Your task to perform on an android device: Search for pizza restaurants on Maps Image 0: 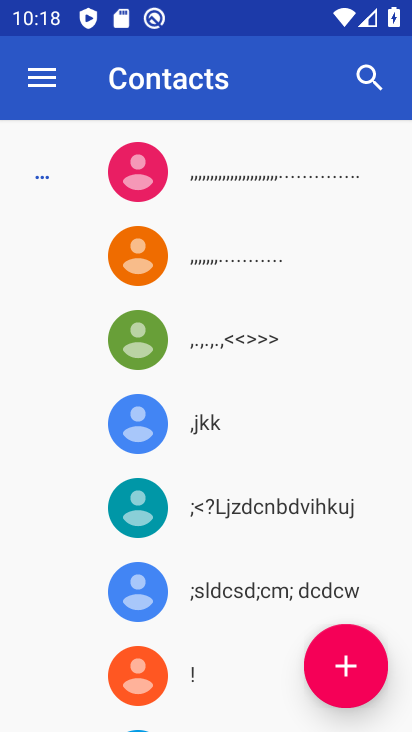
Step 0: press home button
Your task to perform on an android device: Search for pizza restaurants on Maps Image 1: 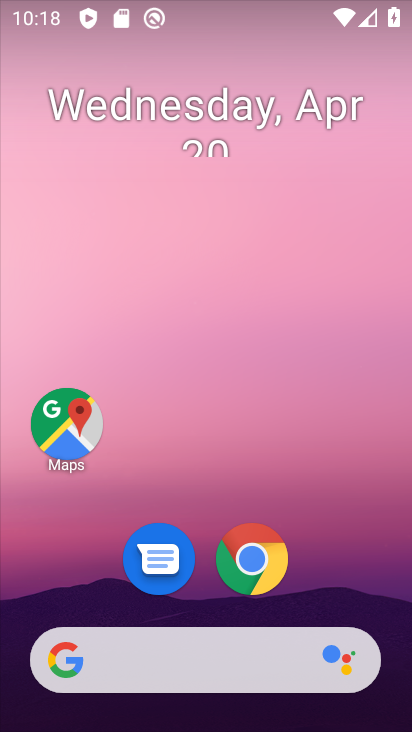
Step 1: drag from (206, 673) to (208, 69)
Your task to perform on an android device: Search for pizza restaurants on Maps Image 2: 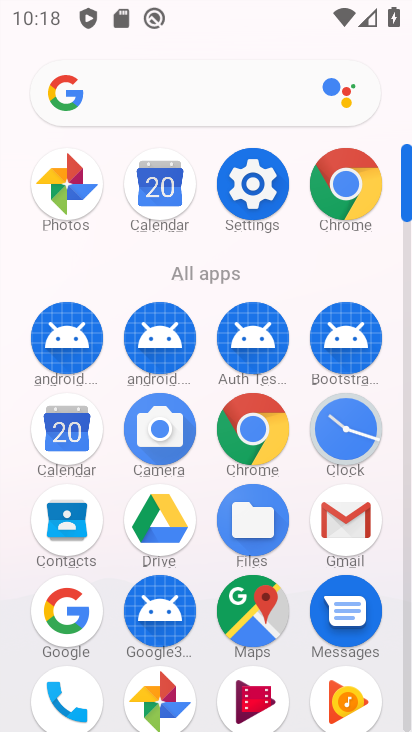
Step 2: click (252, 610)
Your task to perform on an android device: Search for pizza restaurants on Maps Image 3: 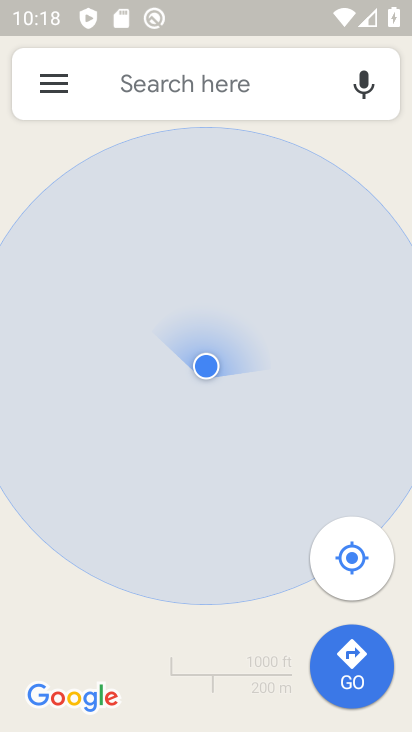
Step 3: click (213, 85)
Your task to perform on an android device: Search for pizza restaurants on Maps Image 4: 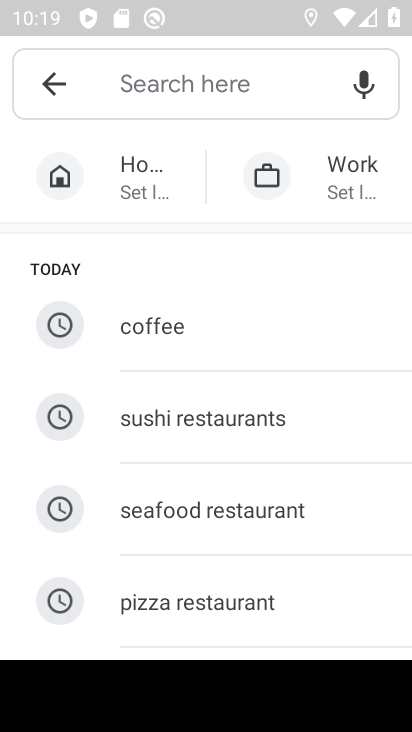
Step 4: type "pizza restaurants"
Your task to perform on an android device: Search for pizza restaurants on Maps Image 5: 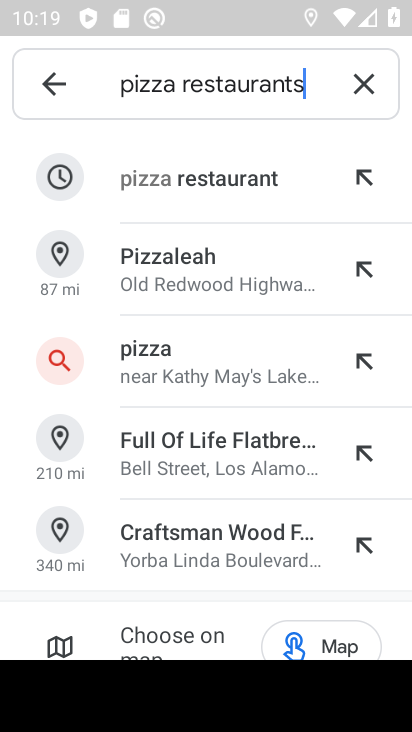
Step 5: click (200, 179)
Your task to perform on an android device: Search for pizza restaurants on Maps Image 6: 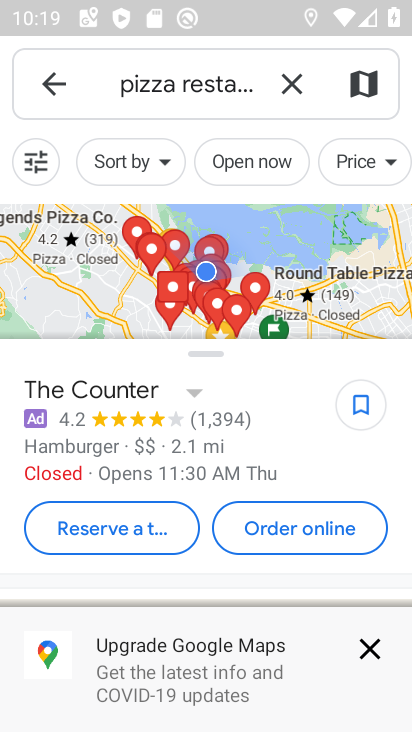
Step 6: task complete